Your task to perform on an android device: uninstall "Google Find My Device" Image 0: 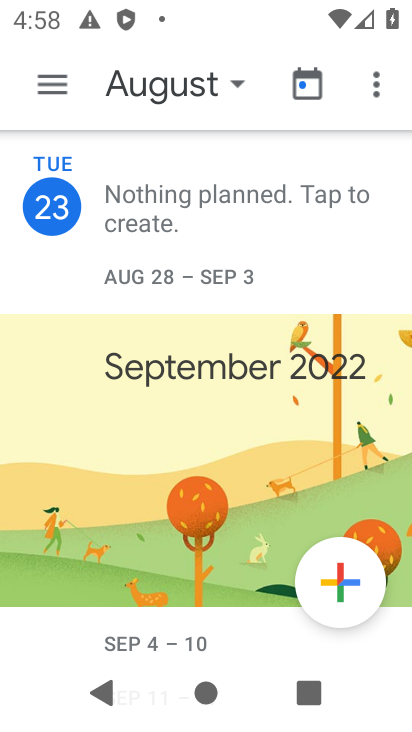
Step 0: press home button
Your task to perform on an android device: uninstall "Google Find My Device" Image 1: 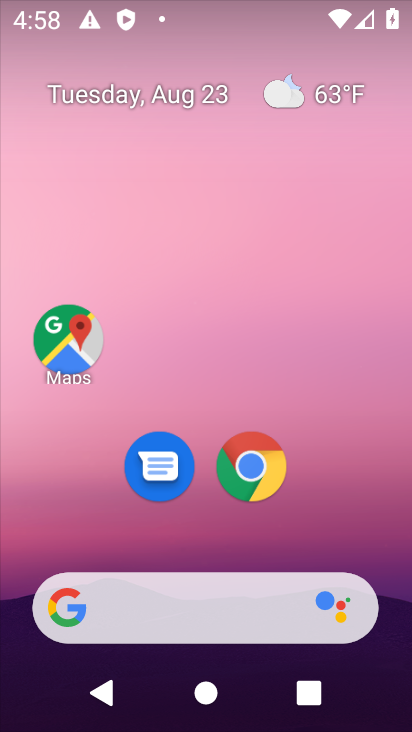
Step 1: drag from (200, 595) to (148, 14)
Your task to perform on an android device: uninstall "Google Find My Device" Image 2: 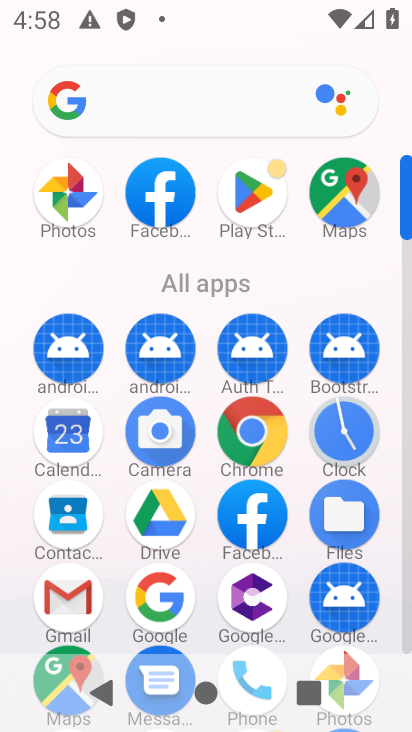
Step 2: click (254, 202)
Your task to perform on an android device: uninstall "Google Find My Device" Image 3: 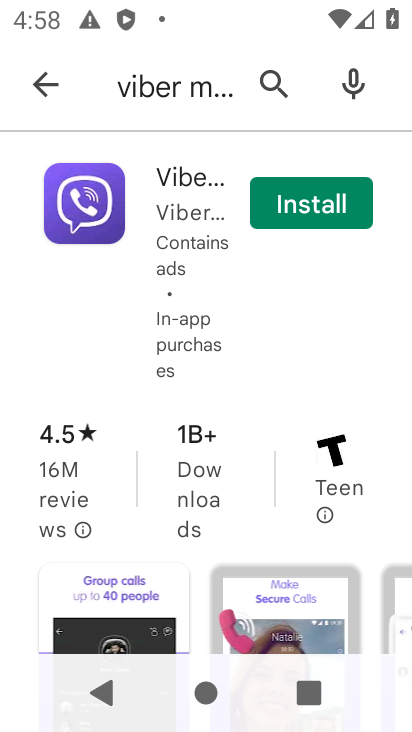
Step 3: click (278, 92)
Your task to perform on an android device: uninstall "Google Find My Device" Image 4: 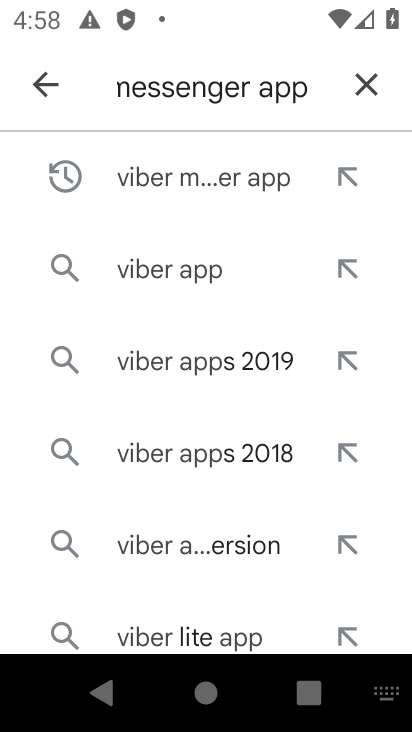
Step 4: click (377, 81)
Your task to perform on an android device: uninstall "Google Find My Device" Image 5: 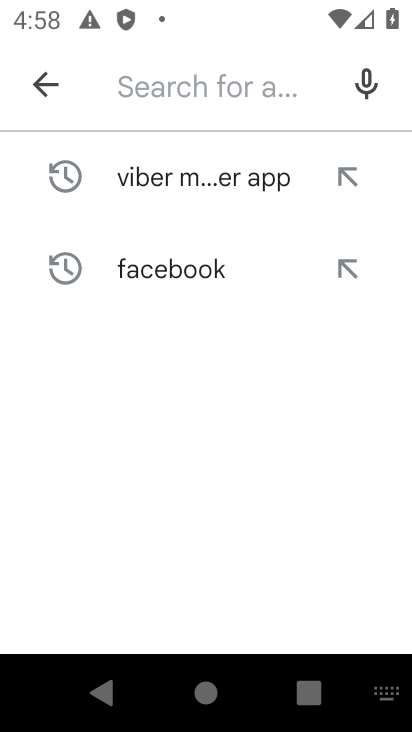
Step 5: type "google find my device"
Your task to perform on an android device: uninstall "Google Find My Device" Image 6: 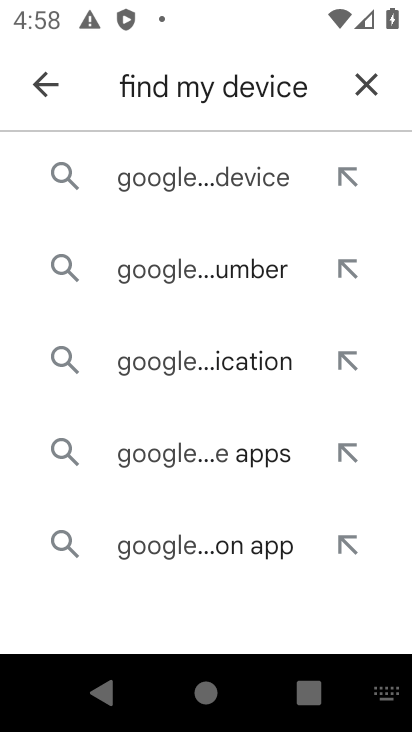
Step 6: click (193, 173)
Your task to perform on an android device: uninstall "Google Find My Device" Image 7: 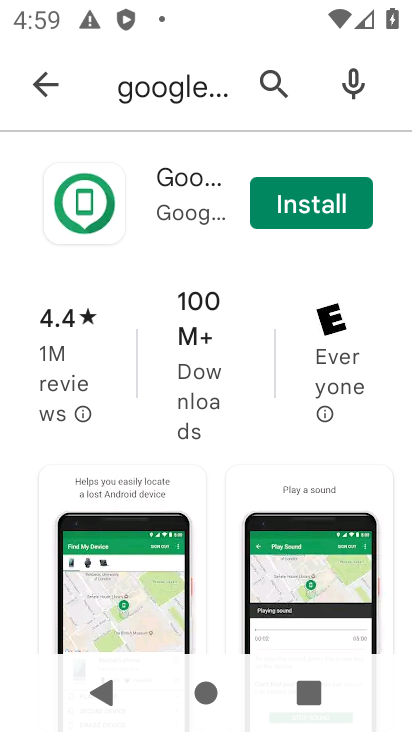
Step 7: task complete